Your task to perform on an android device: Search for jbl charge 4 on ebay.com, select the first entry, add it to the cart, then select checkout. Image 0: 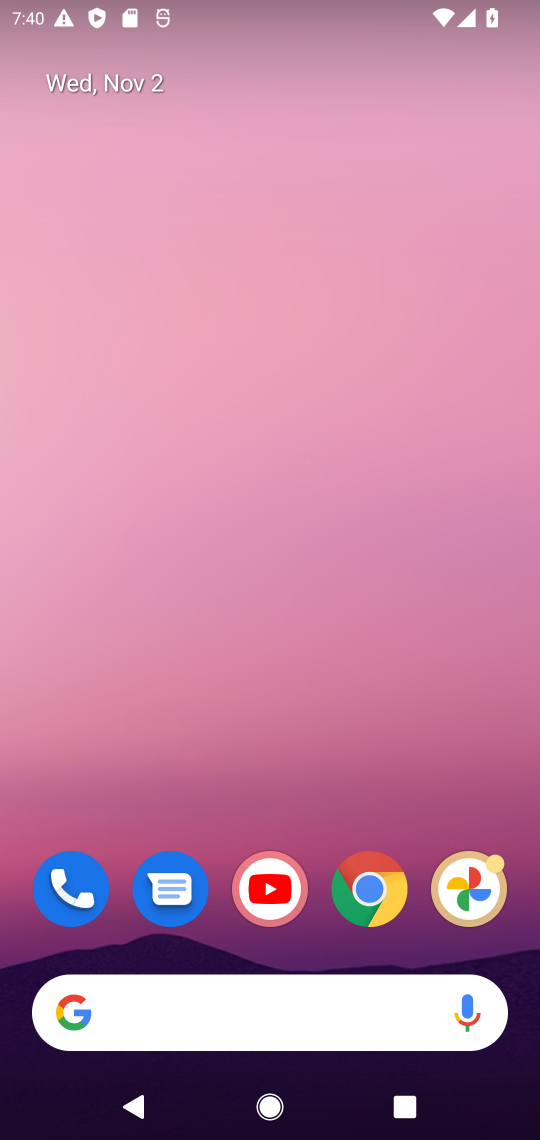
Step 0: press home button
Your task to perform on an android device: Search for jbl charge 4 on ebay.com, select the first entry, add it to the cart, then select checkout. Image 1: 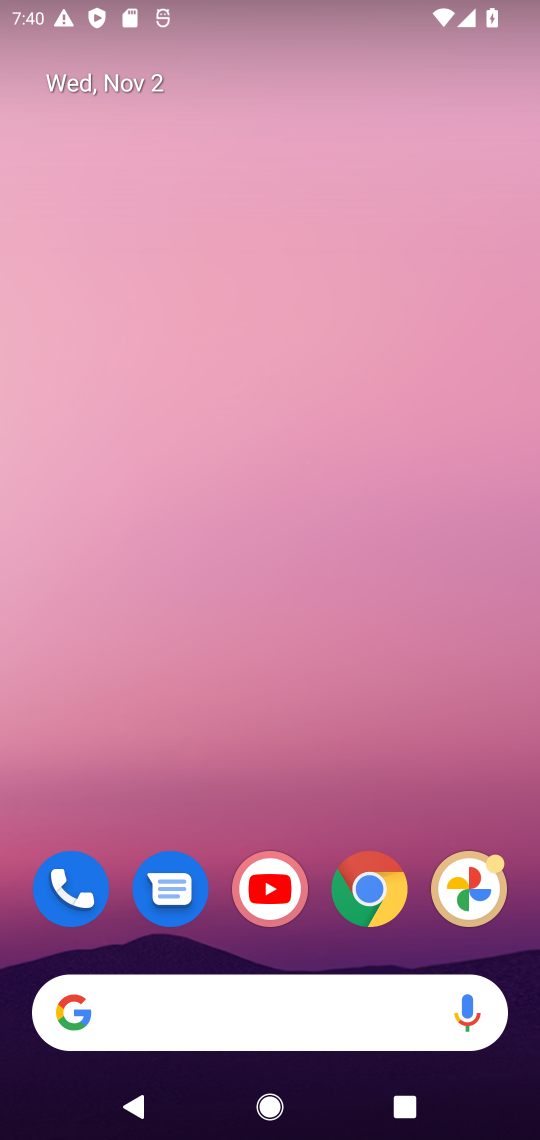
Step 1: drag from (331, 808) to (391, 137)
Your task to perform on an android device: Search for jbl charge 4 on ebay.com, select the first entry, add it to the cart, then select checkout. Image 2: 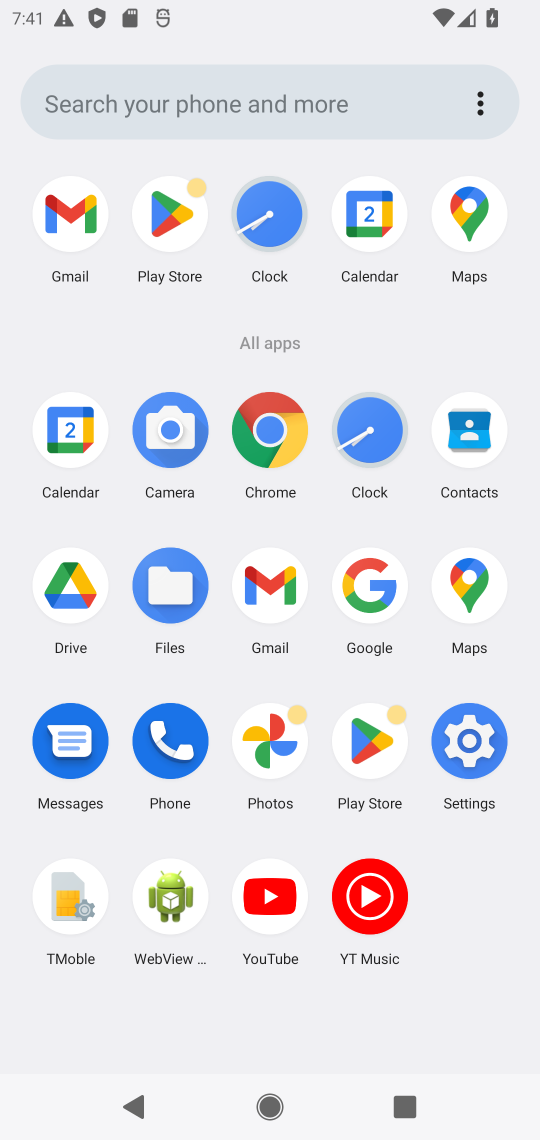
Step 2: click (266, 424)
Your task to perform on an android device: Search for jbl charge 4 on ebay.com, select the first entry, add it to the cart, then select checkout. Image 3: 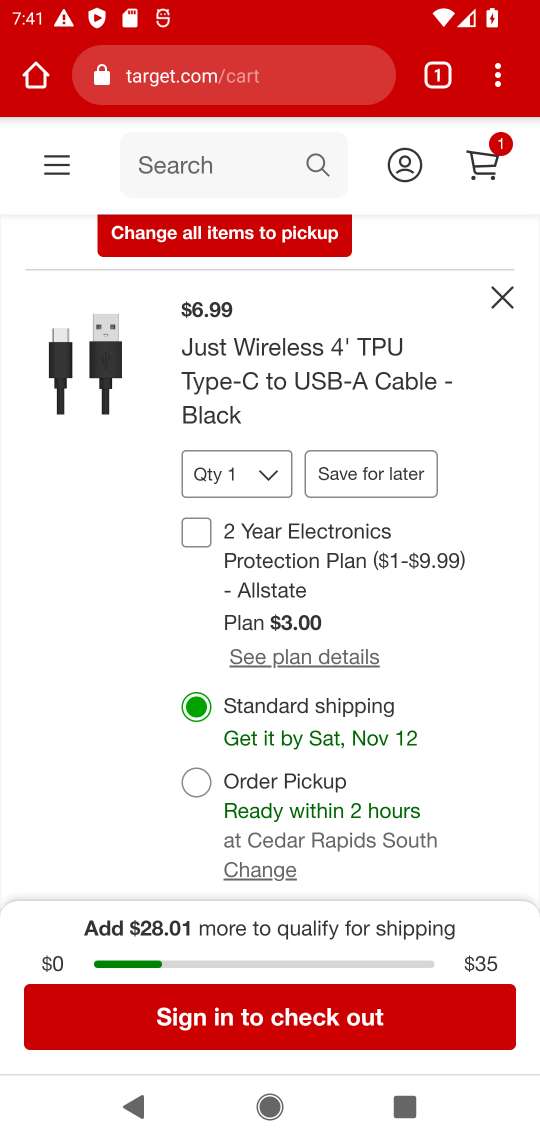
Step 3: click (322, 164)
Your task to perform on an android device: Search for jbl charge 4 on ebay.com, select the first entry, add it to the cart, then select checkout. Image 4: 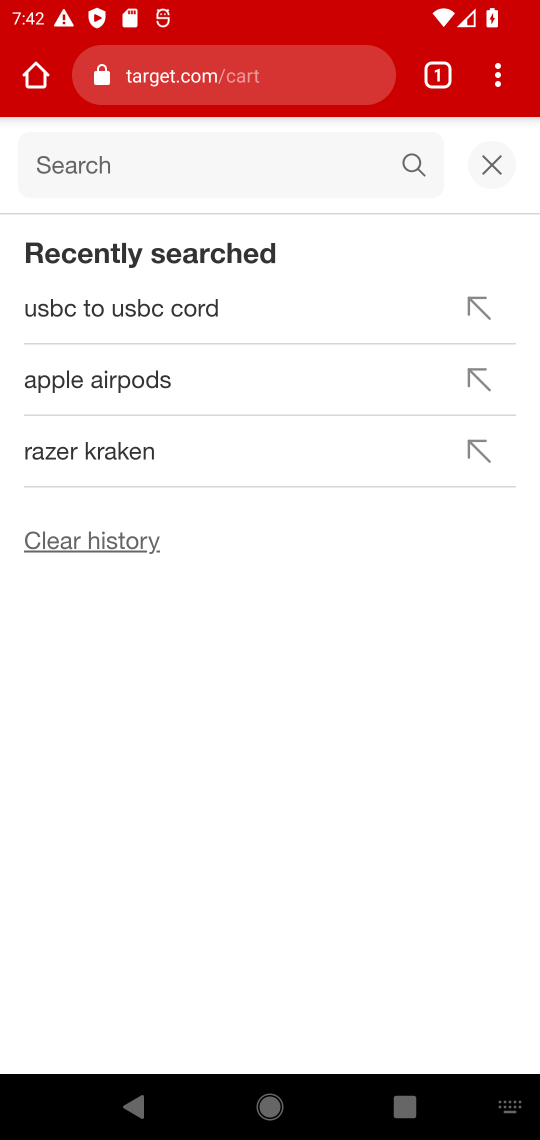
Step 4: type "jbl charge 4"
Your task to perform on an android device: Search for jbl charge 4 on ebay.com, select the first entry, add it to the cart, then select checkout. Image 5: 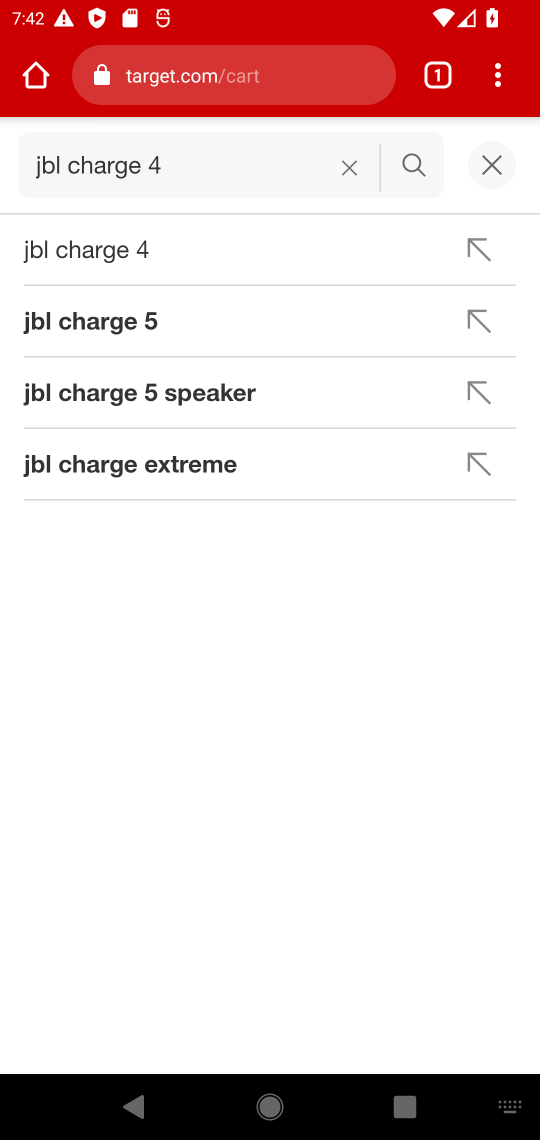
Step 5: click (123, 239)
Your task to perform on an android device: Search for jbl charge 4 on ebay.com, select the first entry, add it to the cart, then select checkout. Image 6: 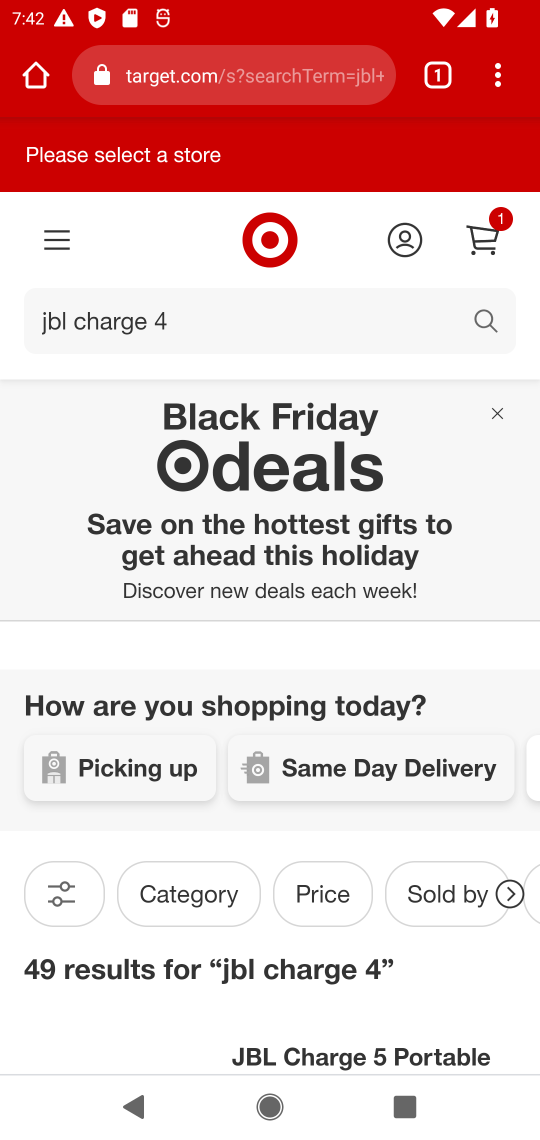
Step 6: drag from (274, 842) to (264, 265)
Your task to perform on an android device: Search for jbl charge 4 on ebay.com, select the first entry, add it to the cart, then select checkout. Image 7: 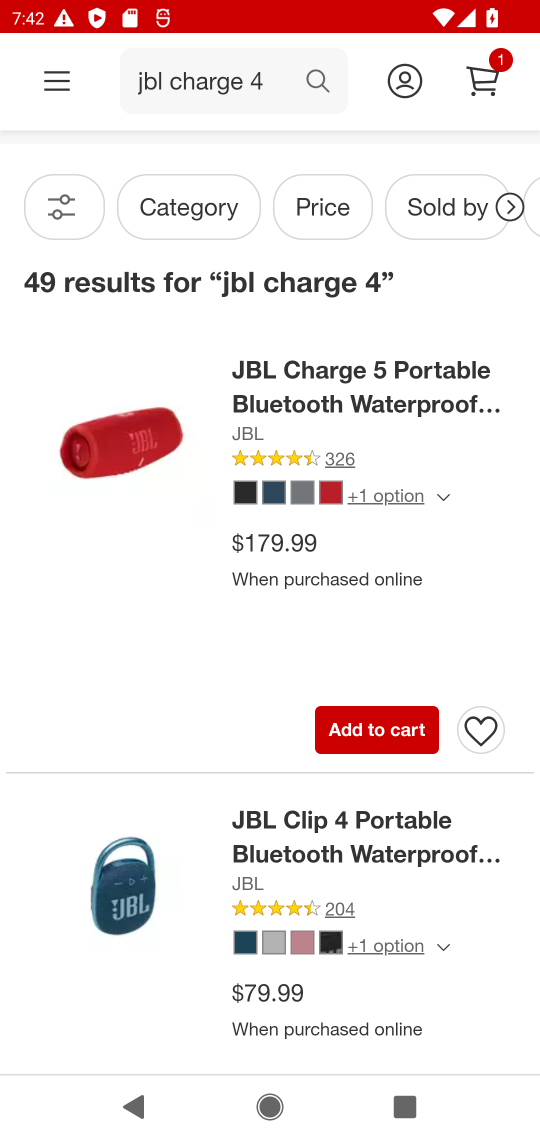
Step 7: click (272, 825)
Your task to perform on an android device: Search for jbl charge 4 on ebay.com, select the first entry, add it to the cart, then select checkout. Image 8: 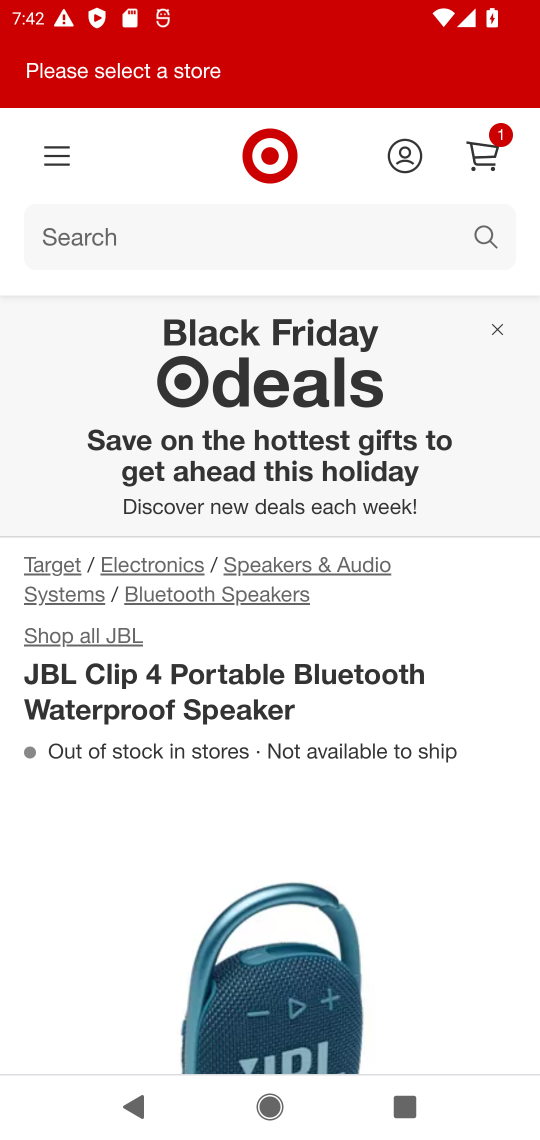
Step 8: drag from (145, 967) to (138, 295)
Your task to perform on an android device: Search for jbl charge 4 on ebay.com, select the first entry, add it to the cart, then select checkout. Image 9: 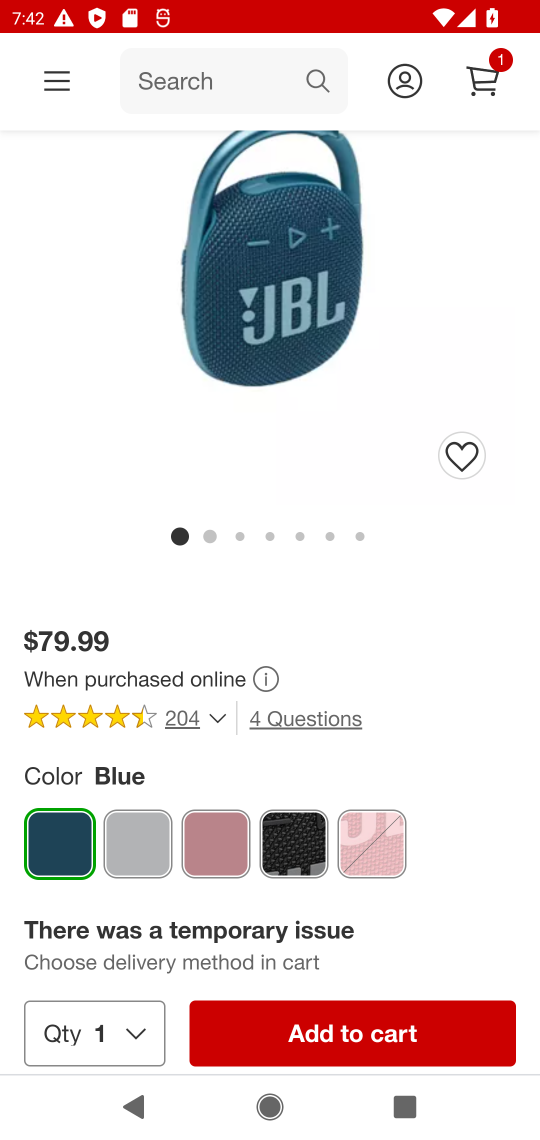
Step 9: drag from (393, 951) to (432, 551)
Your task to perform on an android device: Search for jbl charge 4 on ebay.com, select the first entry, add it to the cart, then select checkout. Image 10: 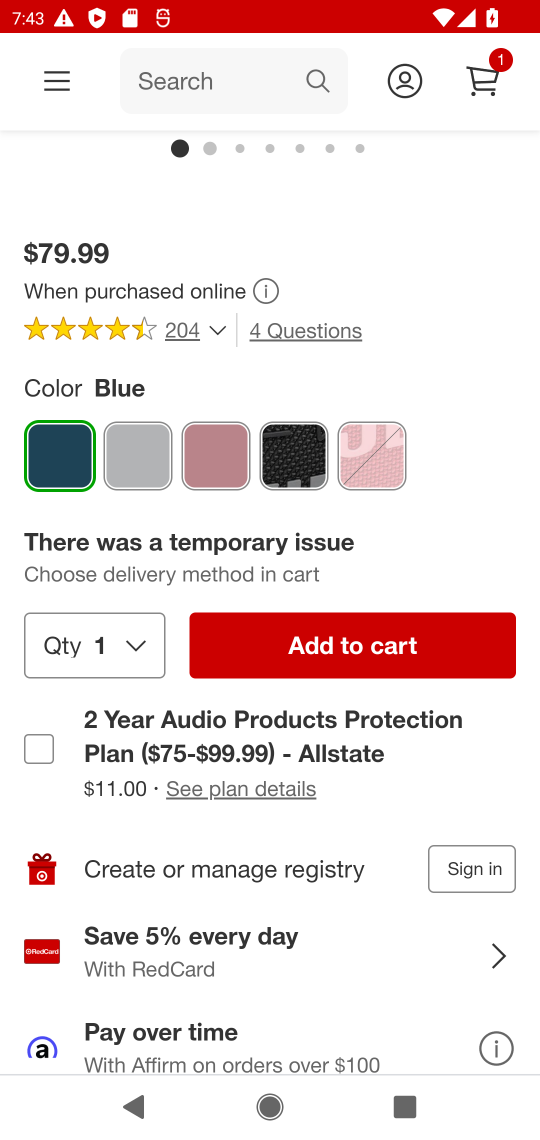
Step 10: click (350, 651)
Your task to perform on an android device: Search for jbl charge 4 on ebay.com, select the first entry, add it to the cart, then select checkout. Image 11: 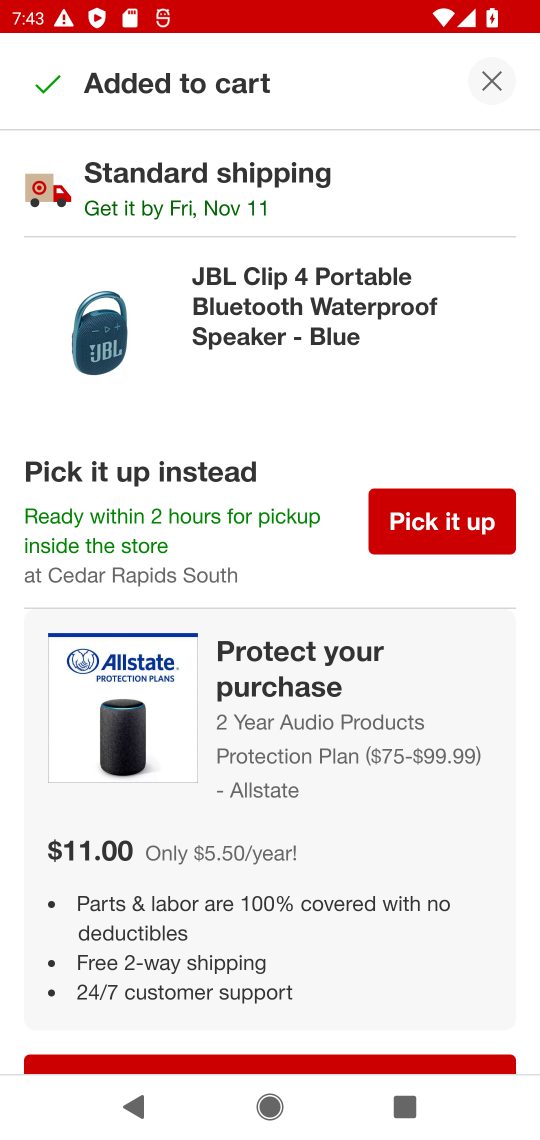
Step 11: click (496, 65)
Your task to perform on an android device: Search for jbl charge 4 on ebay.com, select the first entry, add it to the cart, then select checkout. Image 12: 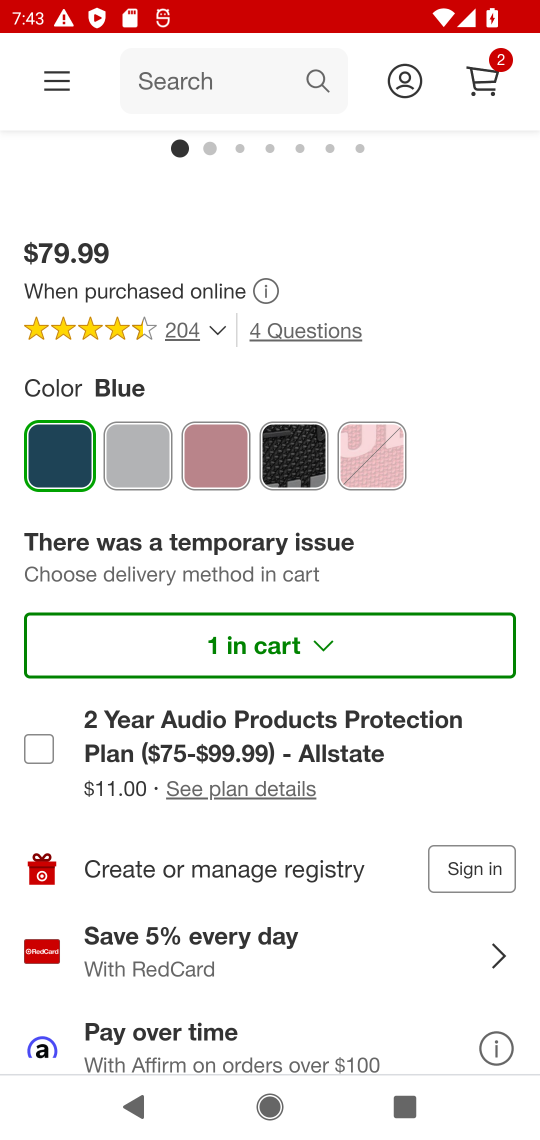
Step 12: click (498, 61)
Your task to perform on an android device: Search for jbl charge 4 on ebay.com, select the first entry, add it to the cart, then select checkout. Image 13: 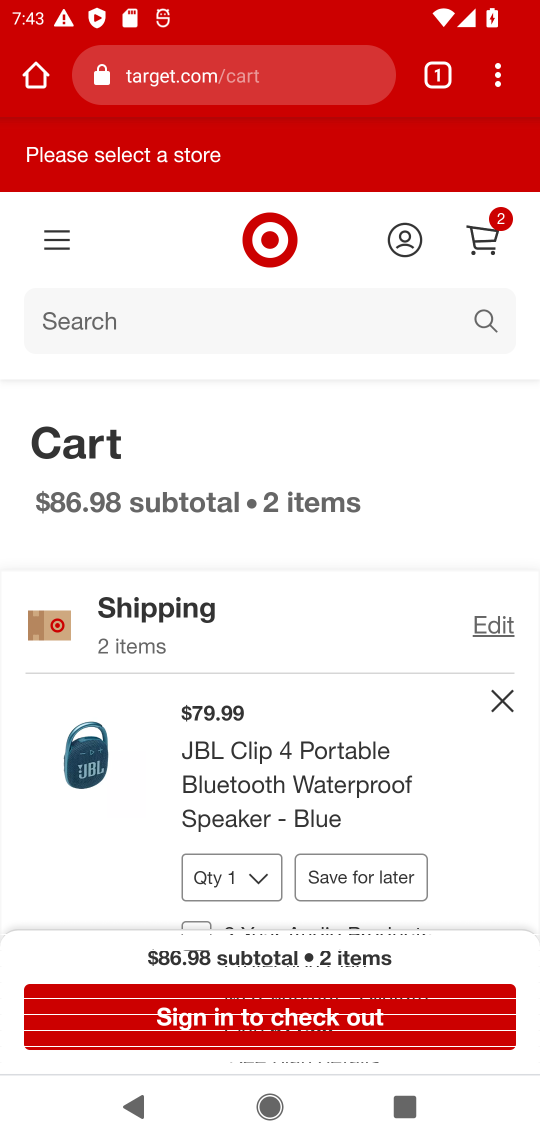
Step 13: drag from (298, 757) to (296, 407)
Your task to perform on an android device: Search for jbl charge 4 on ebay.com, select the first entry, add it to the cart, then select checkout. Image 14: 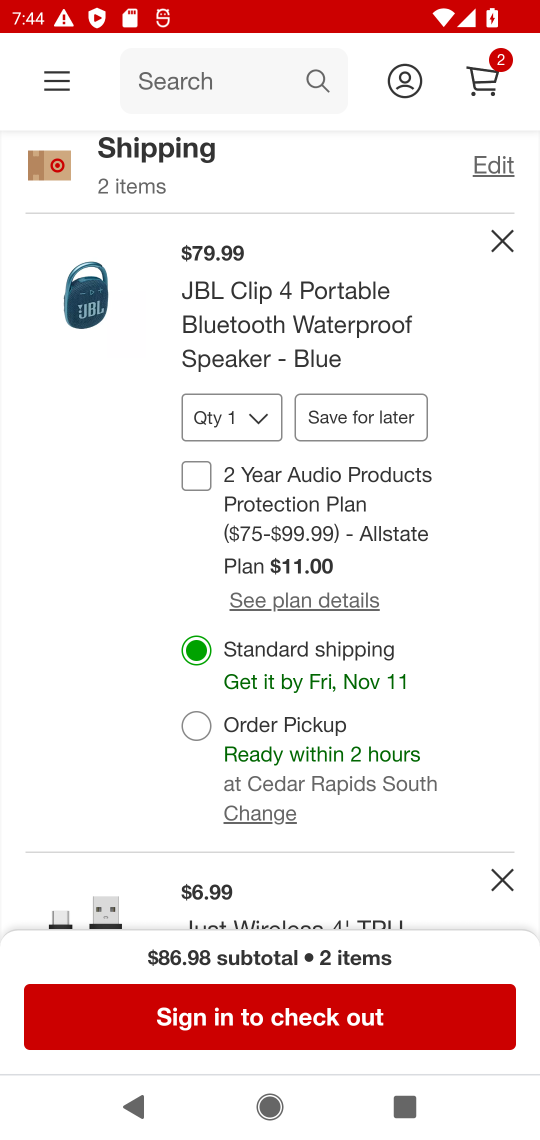
Step 14: click (274, 1024)
Your task to perform on an android device: Search for jbl charge 4 on ebay.com, select the first entry, add it to the cart, then select checkout. Image 15: 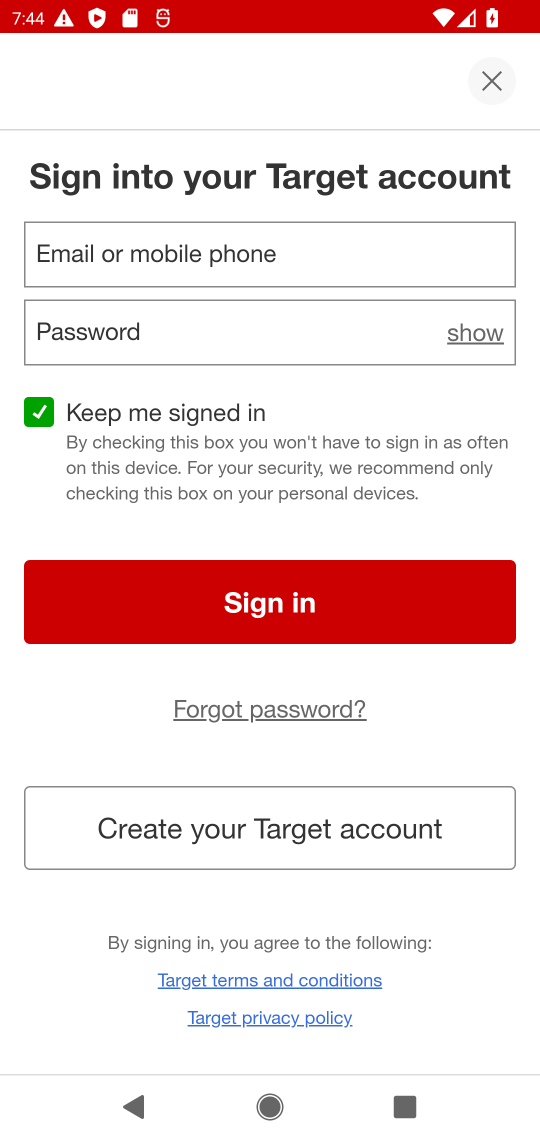
Step 15: click (487, 75)
Your task to perform on an android device: Search for jbl charge 4 on ebay.com, select the first entry, add it to the cart, then select checkout. Image 16: 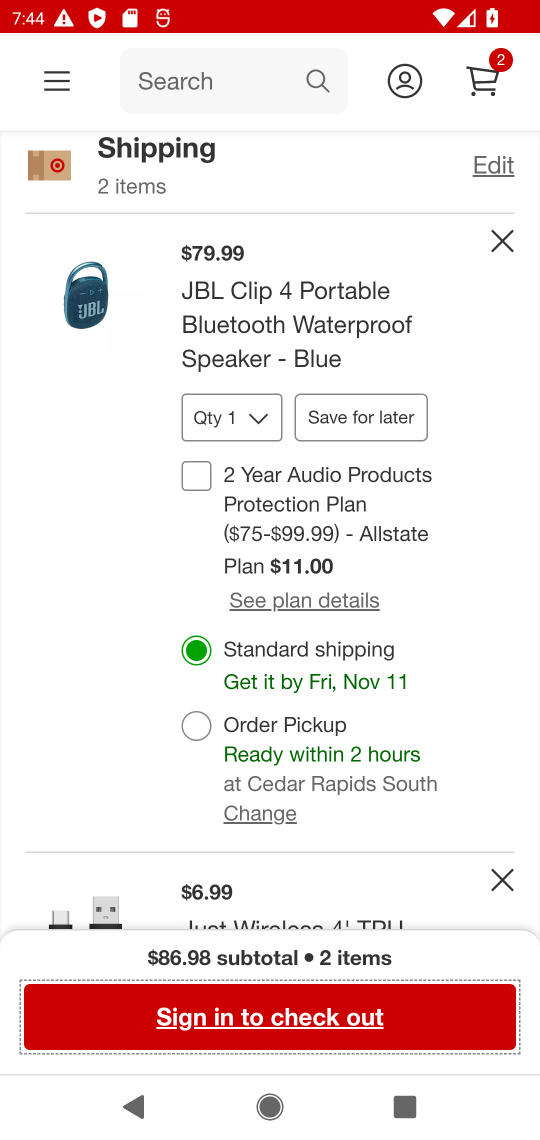
Step 16: task complete